Your task to perform on an android device: check android version Image 0: 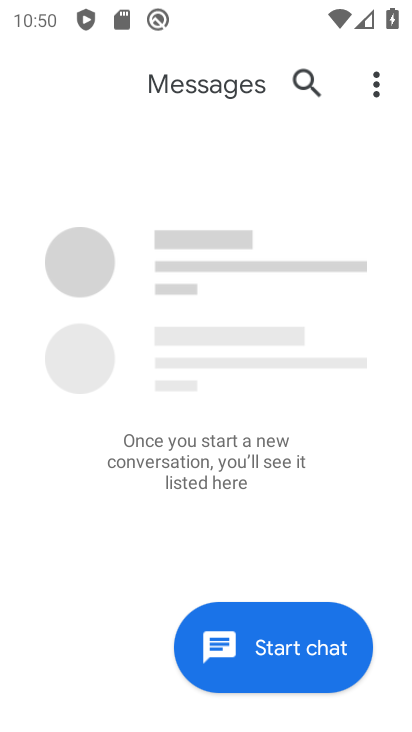
Step 0: press home button
Your task to perform on an android device: check android version Image 1: 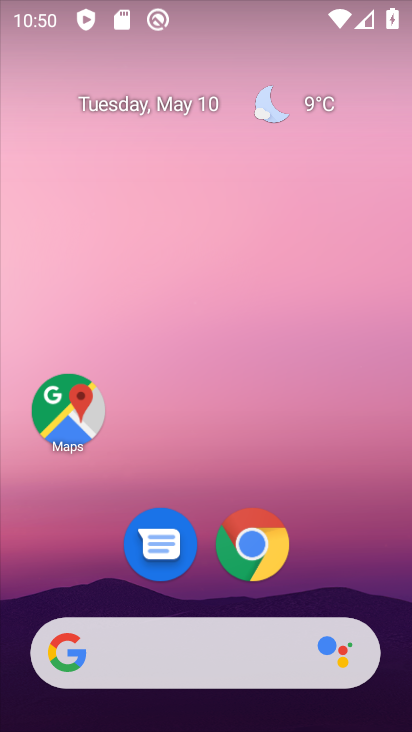
Step 1: drag from (157, 619) to (256, 128)
Your task to perform on an android device: check android version Image 2: 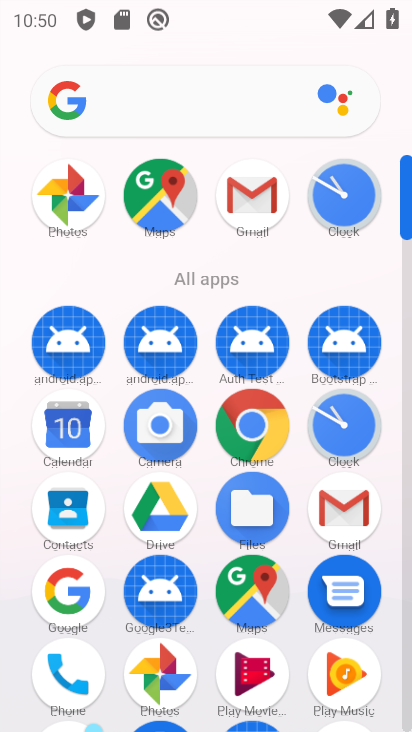
Step 2: drag from (180, 639) to (231, 353)
Your task to perform on an android device: check android version Image 3: 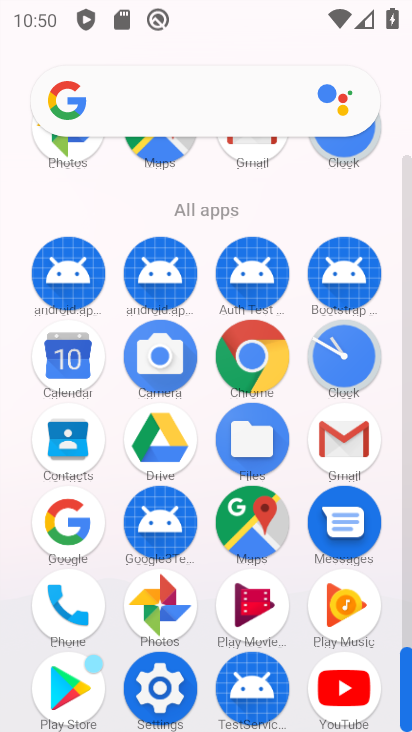
Step 3: click (171, 691)
Your task to perform on an android device: check android version Image 4: 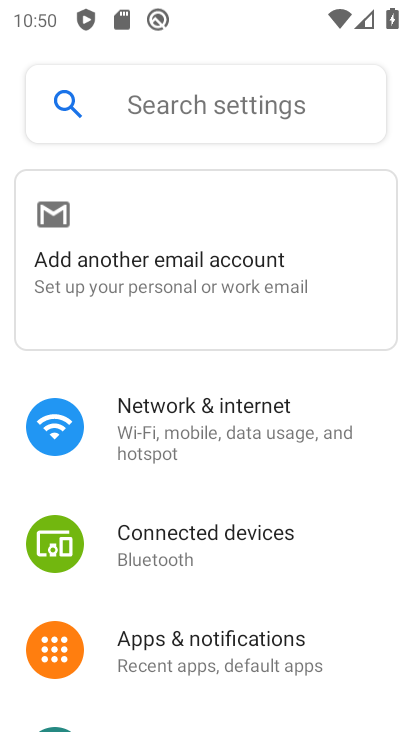
Step 4: drag from (246, 659) to (357, 184)
Your task to perform on an android device: check android version Image 5: 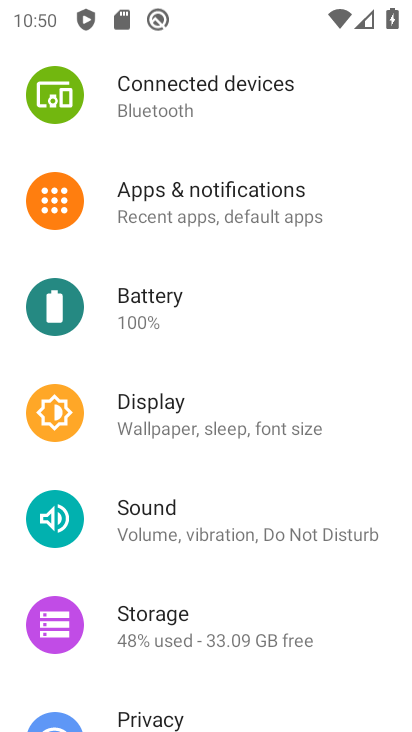
Step 5: drag from (184, 657) to (290, 238)
Your task to perform on an android device: check android version Image 6: 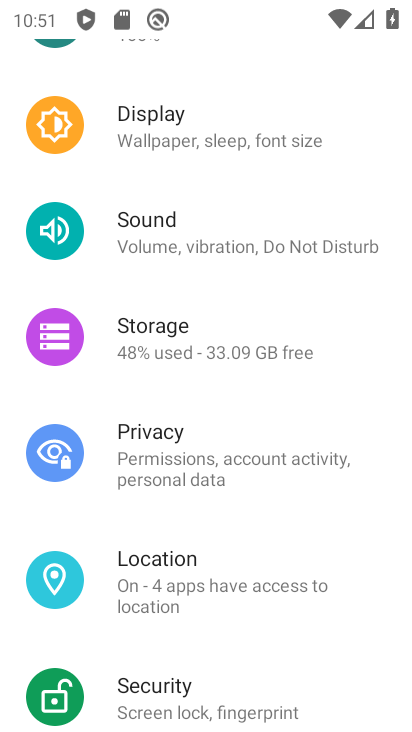
Step 6: drag from (183, 670) to (269, 253)
Your task to perform on an android device: check android version Image 7: 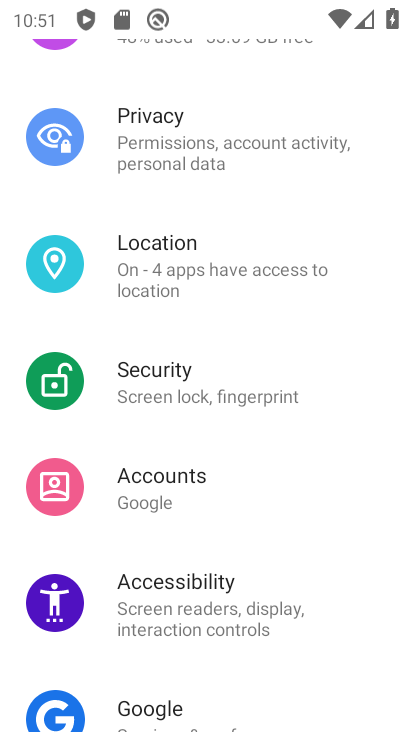
Step 7: drag from (206, 704) to (288, 241)
Your task to perform on an android device: check android version Image 8: 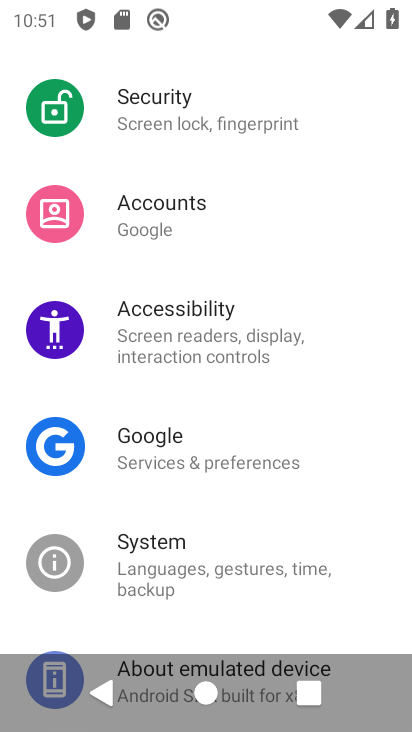
Step 8: drag from (236, 607) to (269, 416)
Your task to perform on an android device: check android version Image 9: 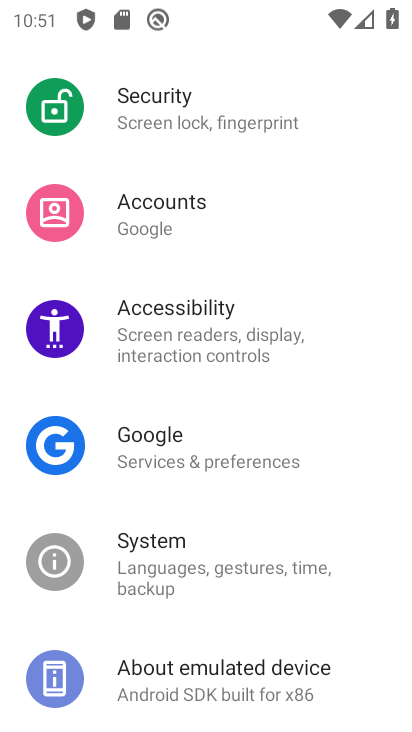
Step 9: click (291, 656)
Your task to perform on an android device: check android version Image 10: 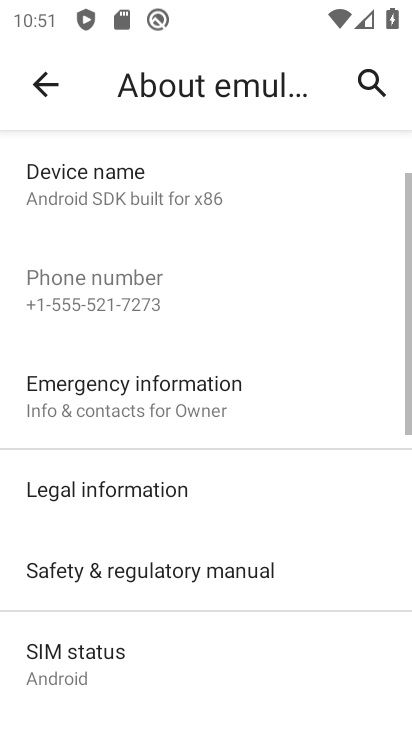
Step 10: drag from (196, 539) to (256, 303)
Your task to perform on an android device: check android version Image 11: 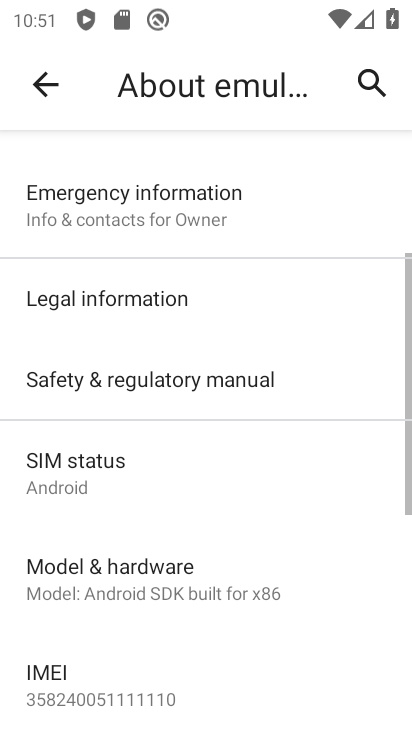
Step 11: drag from (148, 645) to (224, 330)
Your task to perform on an android device: check android version Image 12: 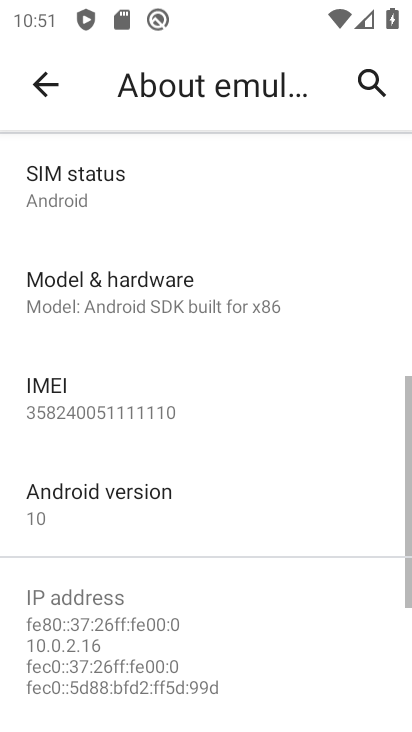
Step 12: click (180, 516)
Your task to perform on an android device: check android version Image 13: 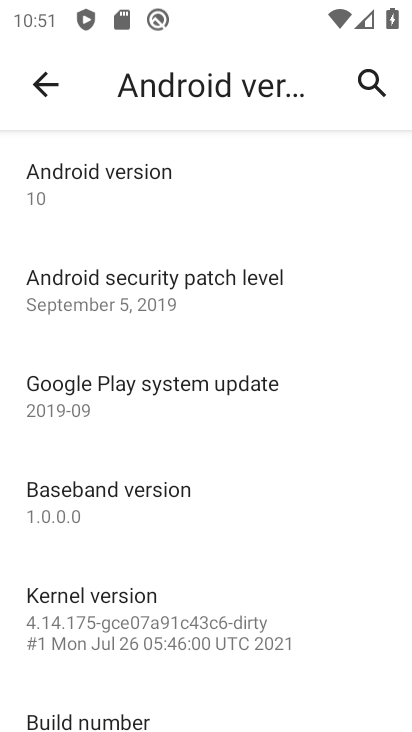
Step 13: task complete